Your task to perform on an android device: Open Amazon Image 0: 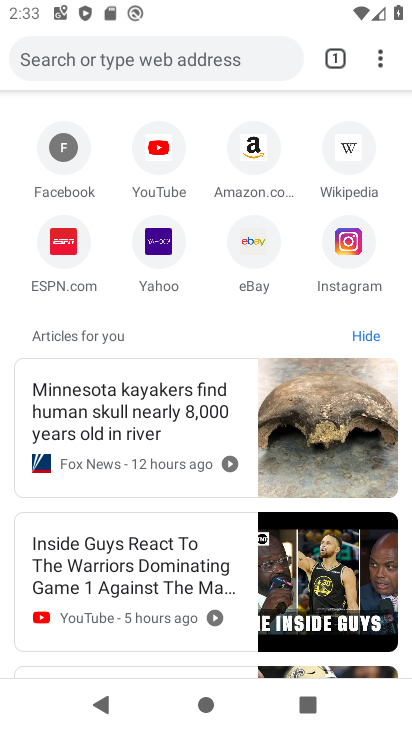
Step 0: click (177, 60)
Your task to perform on an android device: Open Amazon Image 1: 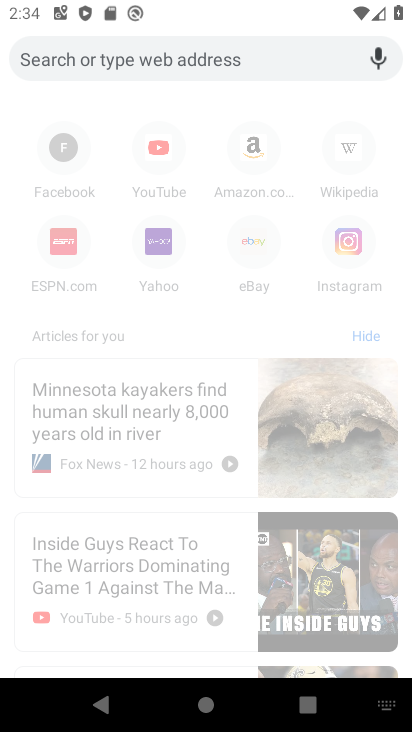
Step 1: type "Amazon"
Your task to perform on an android device: Open Amazon Image 2: 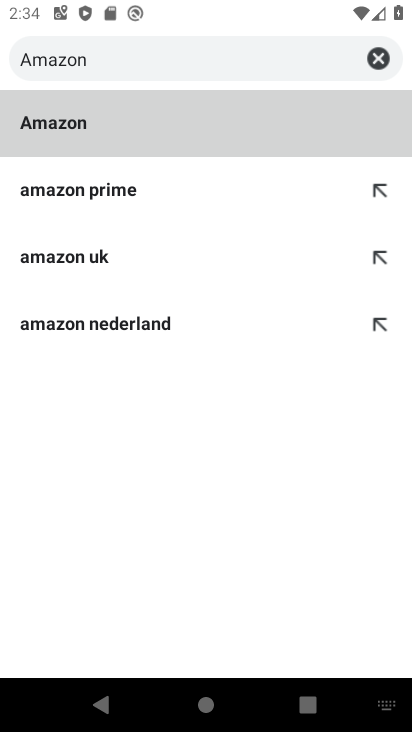
Step 2: click (131, 113)
Your task to perform on an android device: Open Amazon Image 3: 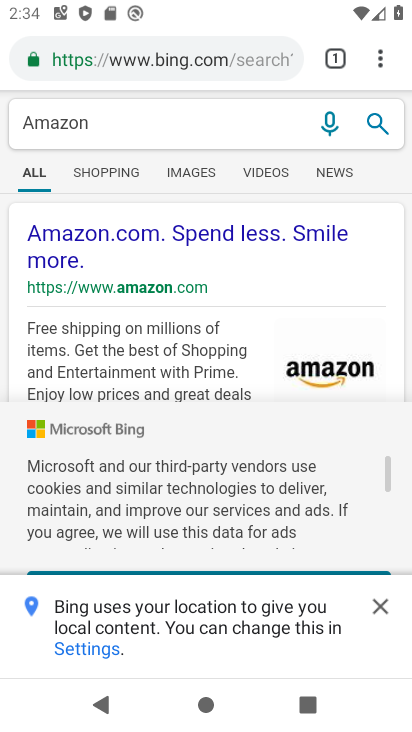
Step 3: click (110, 225)
Your task to perform on an android device: Open Amazon Image 4: 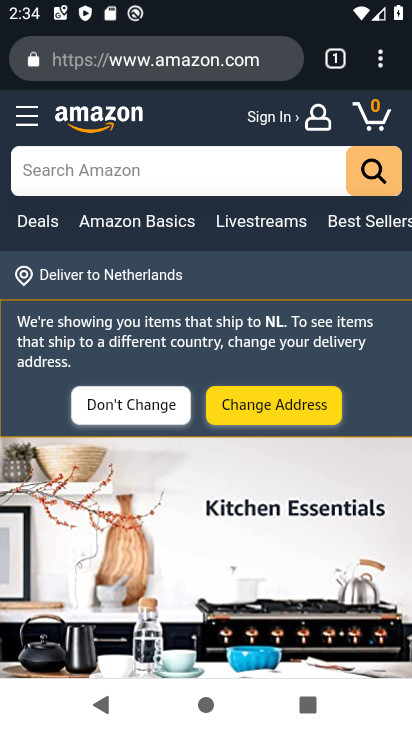
Step 4: task complete